Your task to perform on an android device: change the upload size in google photos Image 0: 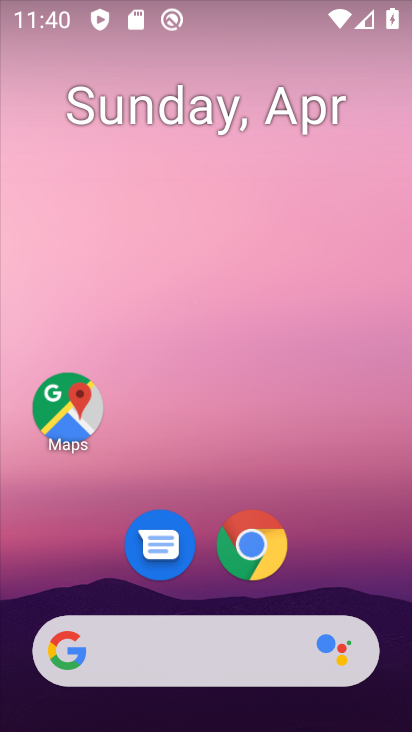
Step 0: drag from (115, 626) to (295, 110)
Your task to perform on an android device: change the upload size in google photos Image 1: 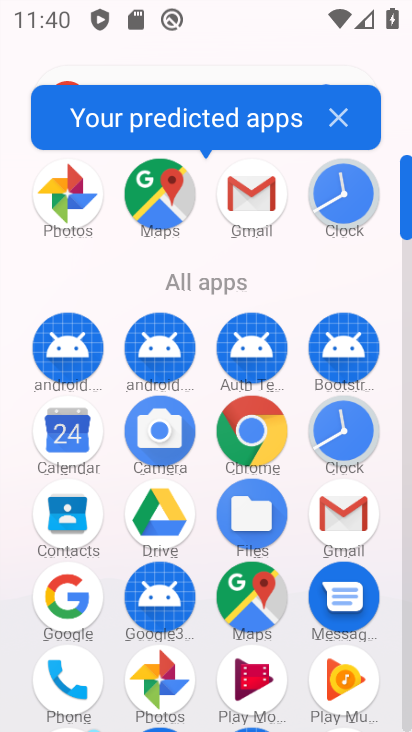
Step 1: click (152, 666)
Your task to perform on an android device: change the upload size in google photos Image 2: 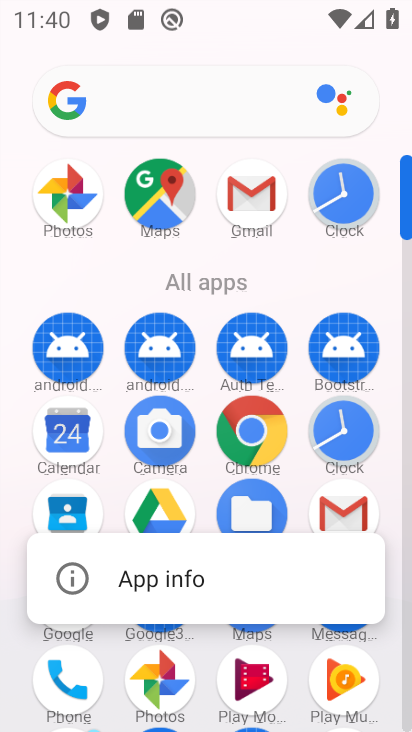
Step 2: click (157, 667)
Your task to perform on an android device: change the upload size in google photos Image 3: 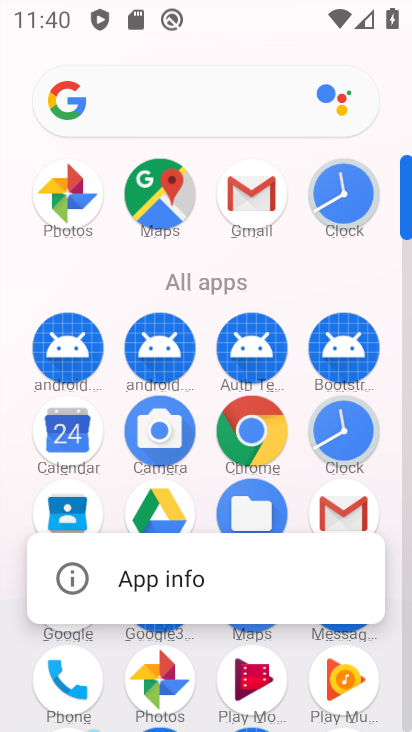
Step 3: click (171, 685)
Your task to perform on an android device: change the upload size in google photos Image 4: 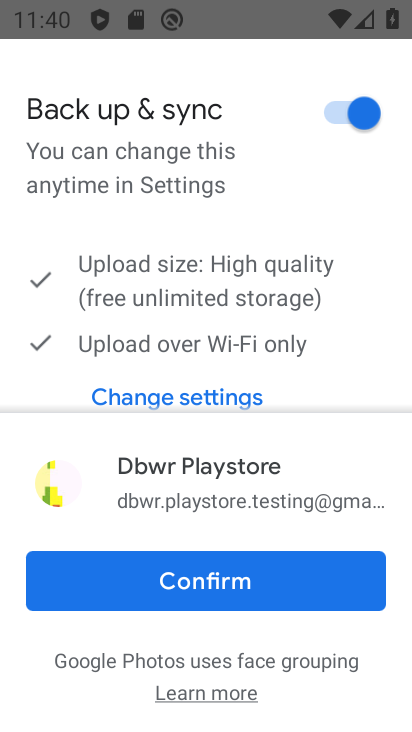
Step 4: click (148, 591)
Your task to perform on an android device: change the upload size in google photos Image 5: 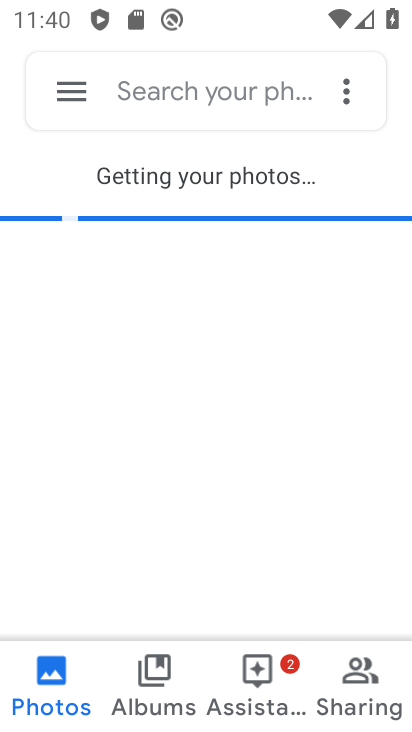
Step 5: click (49, 92)
Your task to perform on an android device: change the upload size in google photos Image 6: 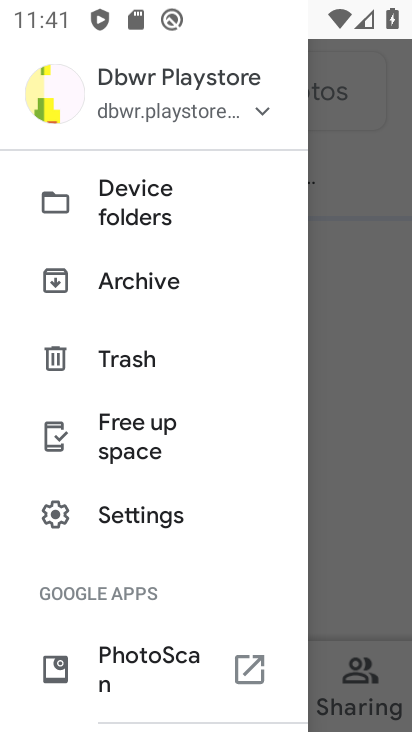
Step 6: click (184, 519)
Your task to perform on an android device: change the upload size in google photos Image 7: 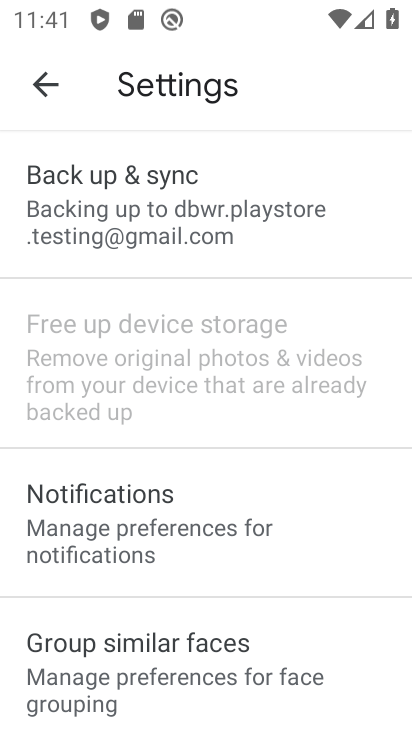
Step 7: drag from (123, 690) to (228, 361)
Your task to perform on an android device: change the upload size in google photos Image 8: 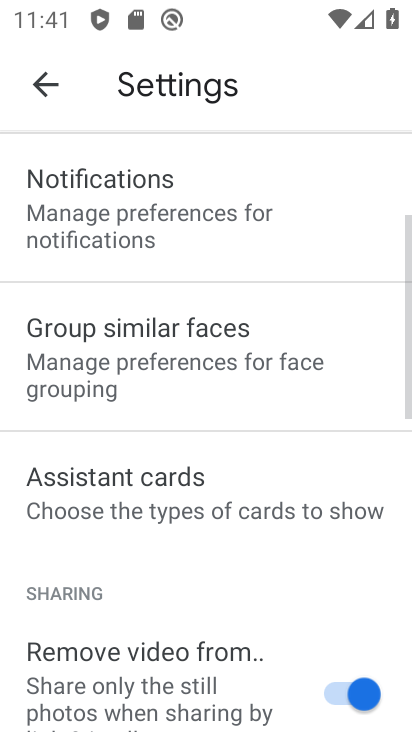
Step 8: drag from (234, 336) to (169, 731)
Your task to perform on an android device: change the upload size in google photos Image 9: 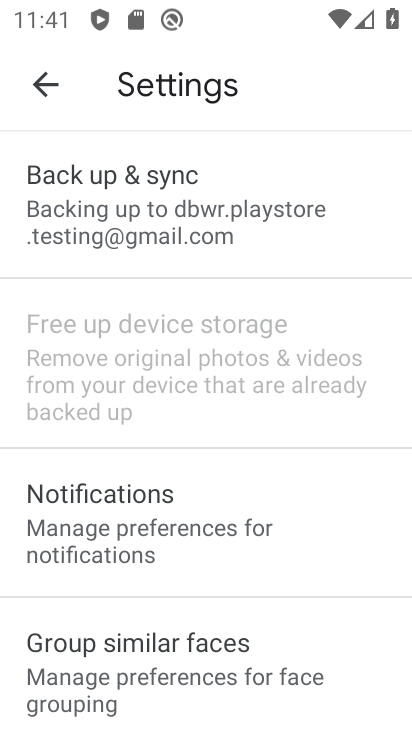
Step 9: click (208, 236)
Your task to perform on an android device: change the upload size in google photos Image 10: 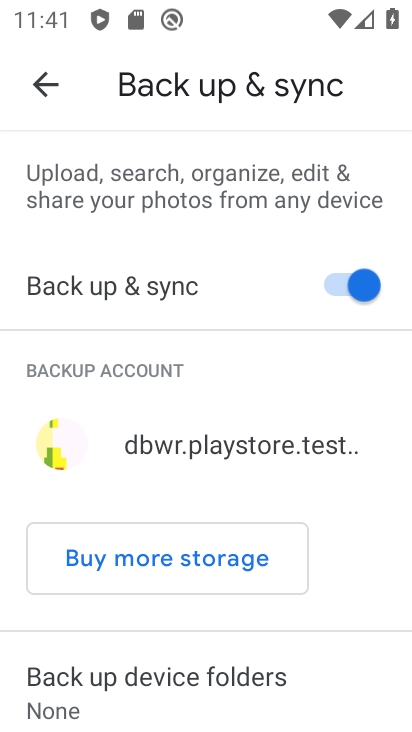
Step 10: drag from (246, 652) to (404, 243)
Your task to perform on an android device: change the upload size in google photos Image 11: 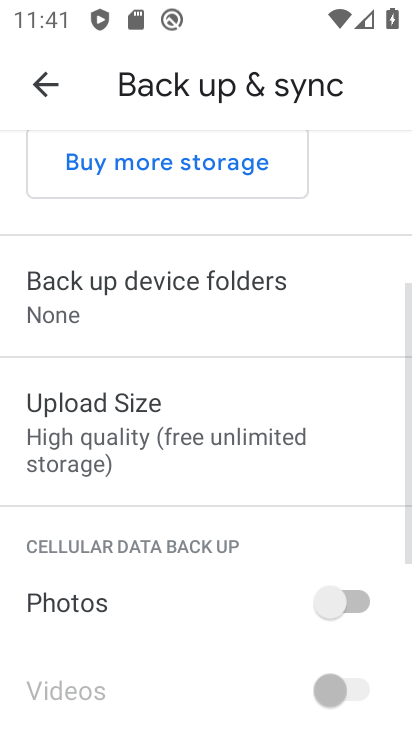
Step 11: click (283, 482)
Your task to perform on an android device: change the upload size in google photos Image 12: 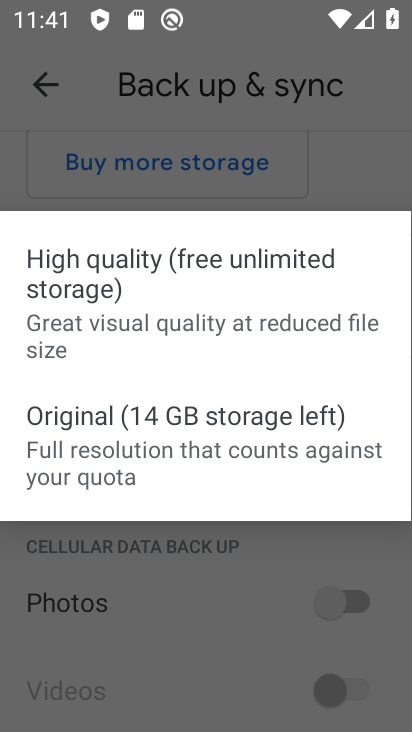
Step 12: click (220, 461)
Your task to perform on an android device: change the upload size in google photos Image 13: 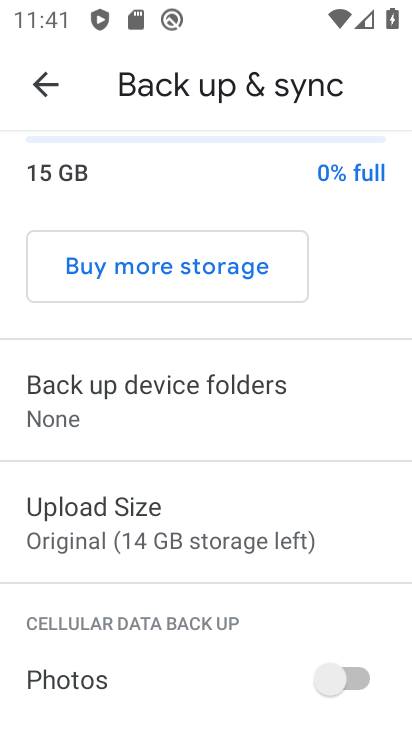
Step 13: task complete